Your task to perform on an android device: delete browsing data in the chrome app Image 0: 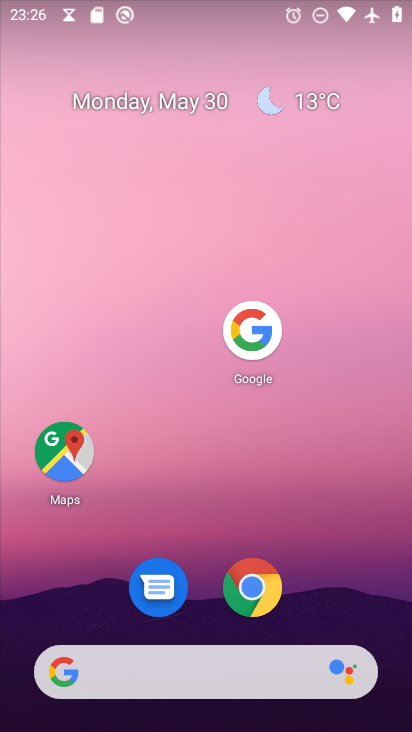
Step 0: press home button
Your task to perform on an android device: delete browsing data in the chrome app Image 1: 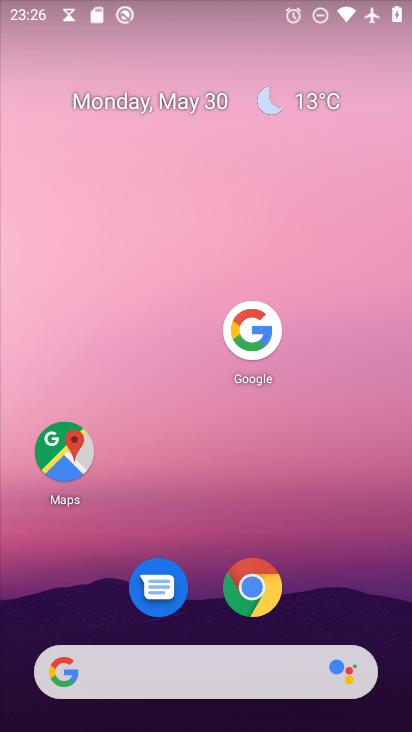
Step 1: click (247, 591)
Your task to perform on an android device: delete browsing data in the chrome app Image 2: 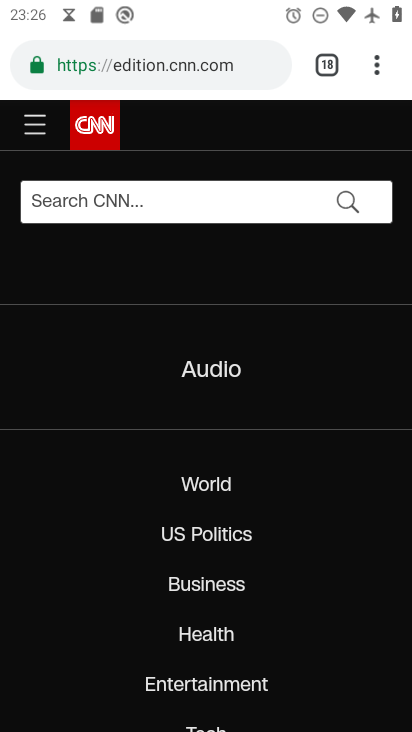
Step 2: drag from (378, 66) to (235, 637)
Your task to perform on an android device: delete browsing data in the chrome app Image 3: 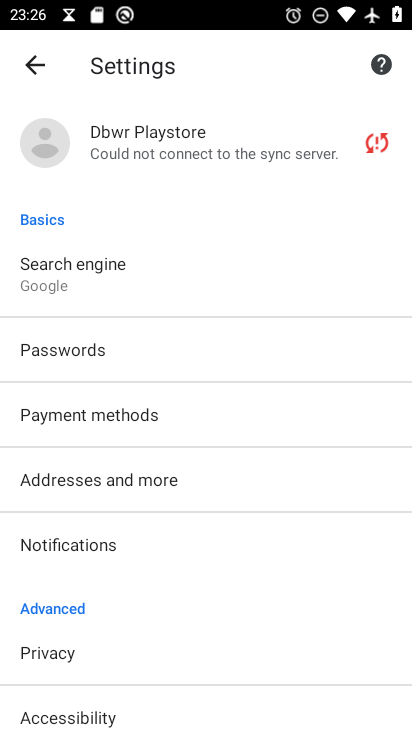
Step 3: click (64, 652)
Your task to perform on an android device: delete browsing data in the chrome app Image 4: 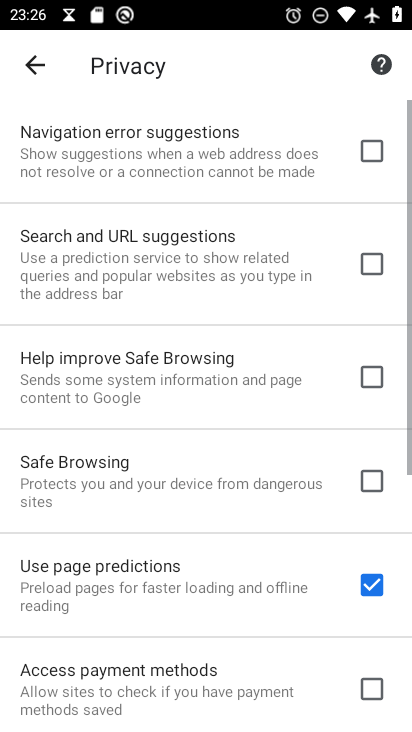
Step 4: drag from (217, 668) to (356, 119)
Your task to perform on an android device: delete browsing data in the chrome app Image 5: 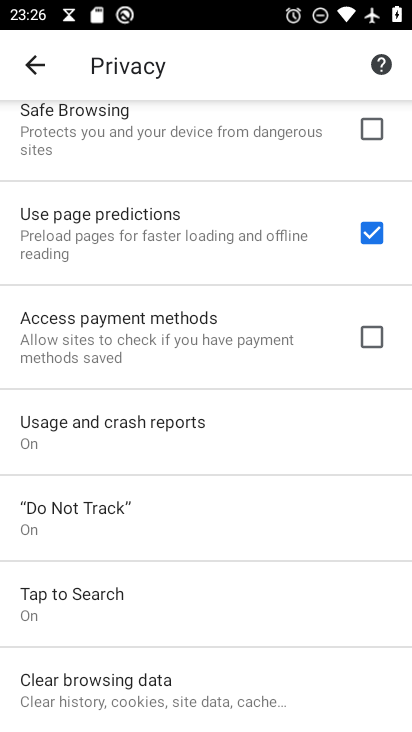
Step 5: click (140, 678)
Your task to perform on an android device: delete browsing data in the chrome app Image 6: 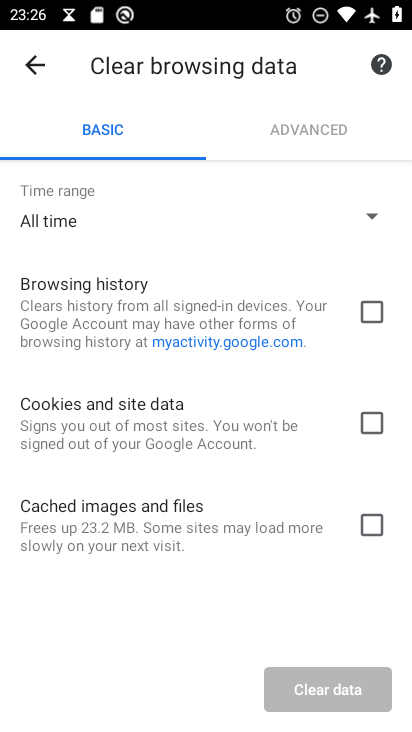
Step 6: click (376, 311)
Your task to perform on an android device: delete browsing data in the chrome app Image 7: 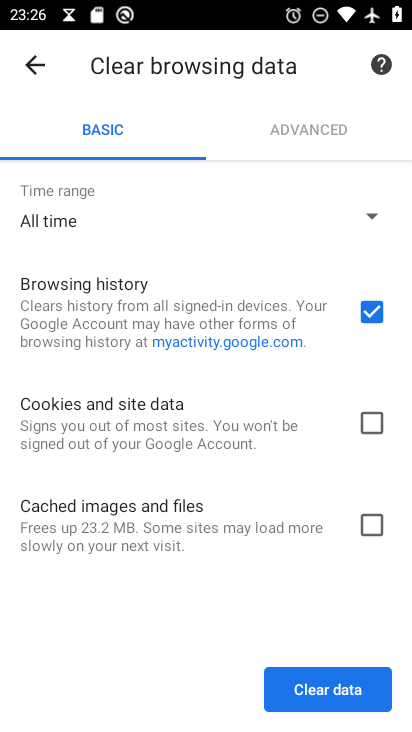
Step 7: click (366, 418)
Your task to perform on an android device: delete browsing data in the chrome app Image 8: 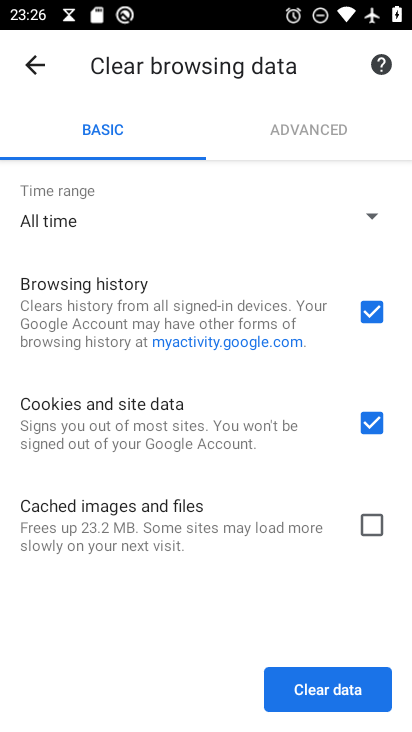
Step 8: click (373, 523)
Your task to perform on an android device: delete browsing data in the chrome app Image 9: 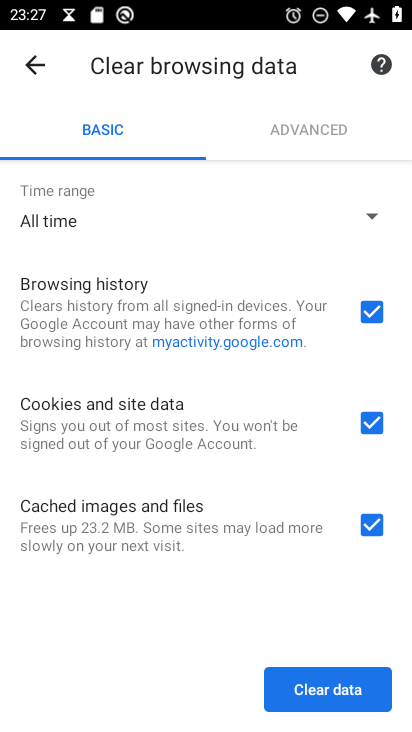
Step 9: click (327, 685)
Your task to perform on an android device: delete browsing data in the chrome app Image 10: 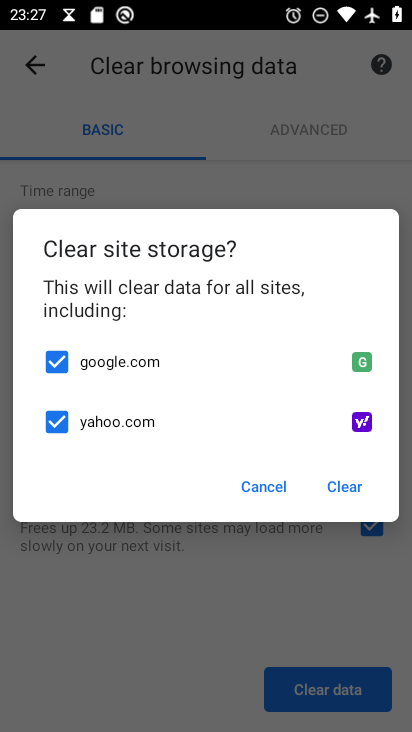
Step 10: click (347, 483)
Your task to perform on an android device: delete browsing data in the chrome app Image 11: 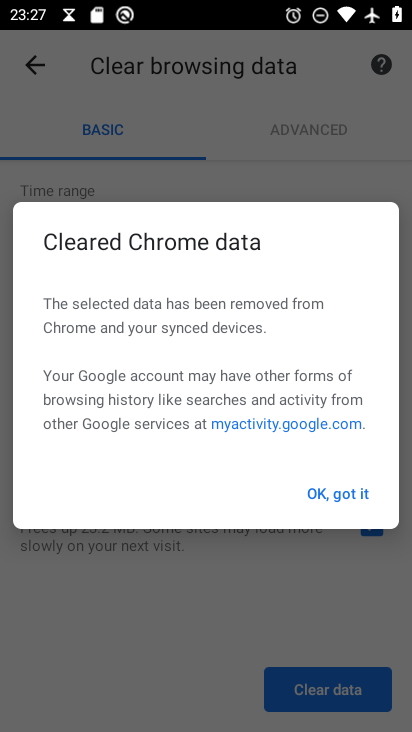
Step 11: click (350, 495)
Your task to perform on an android device: delete browsing data in the chrome app Image 12: 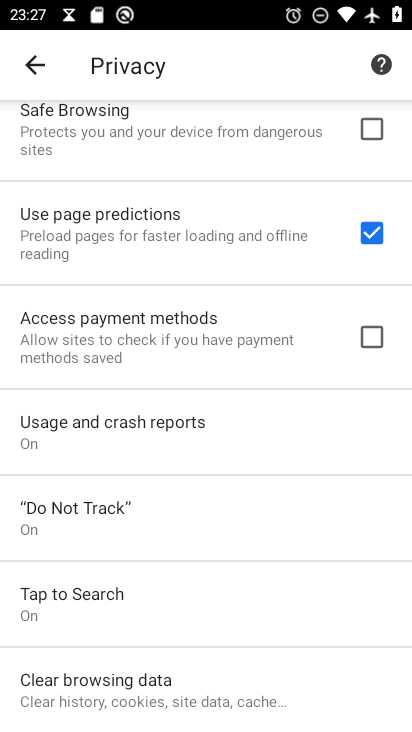
Step 12: task complete